Your task to perform on an android device: Clear the shopping cart on target. Add "acer nitro" to the cart on target, then select checkout. Image 0: 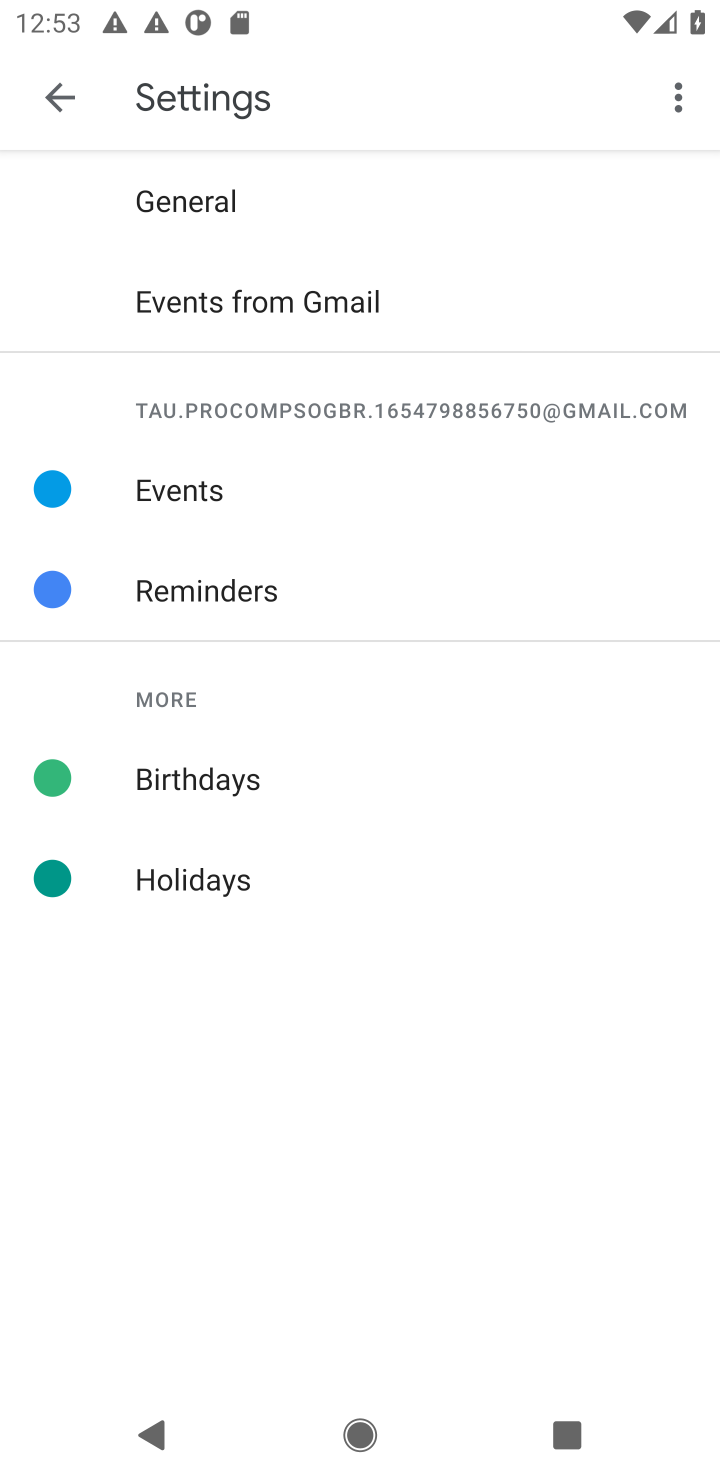
Step 0: press home button
Your task to perform on an android device: Clear the shopping cart on target. Add "acer nitro" to the cart on target, then select checkout. Image 1: 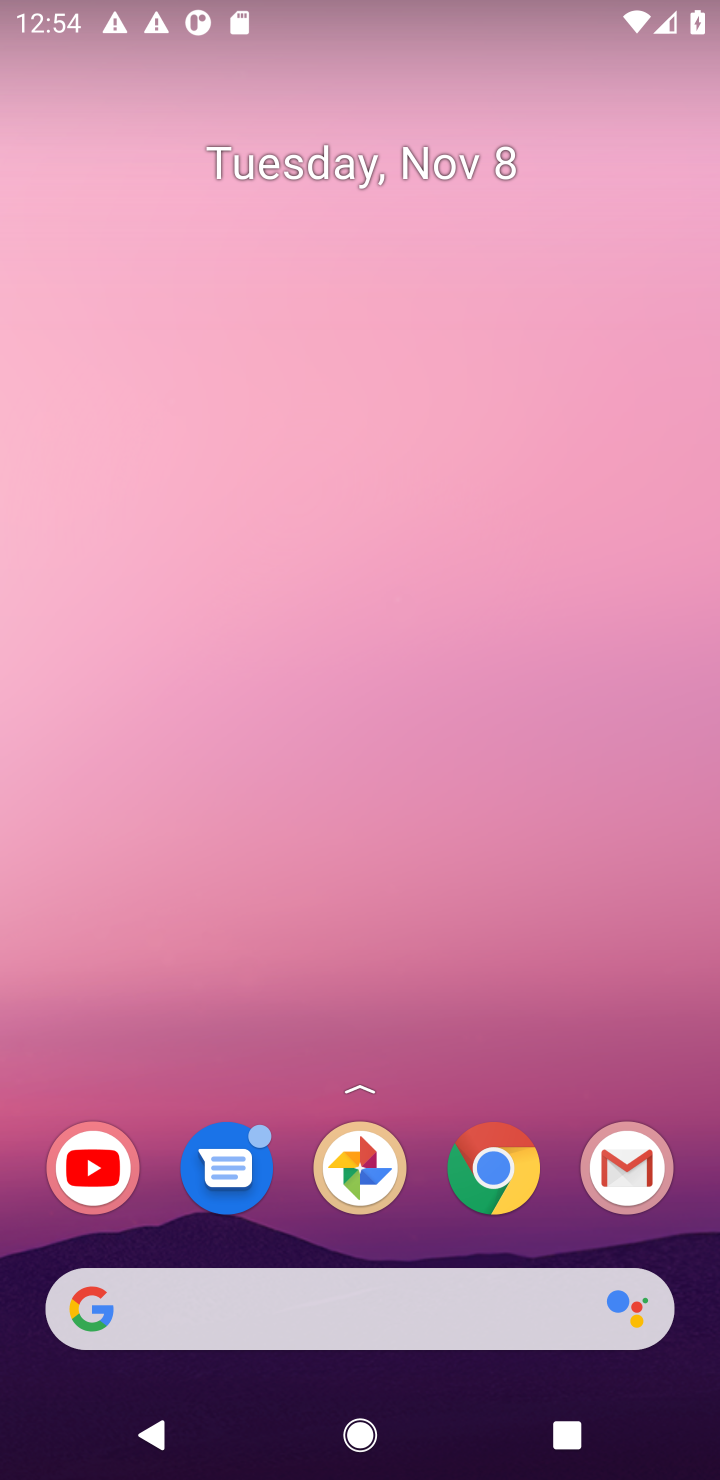
Step 1: drag from (420, 1094) to (317, 106)
Your task to perform on an android device: Clear the shopping cart on target. Add "acer nitro" to the cart on target, then select checkout. Image 2: 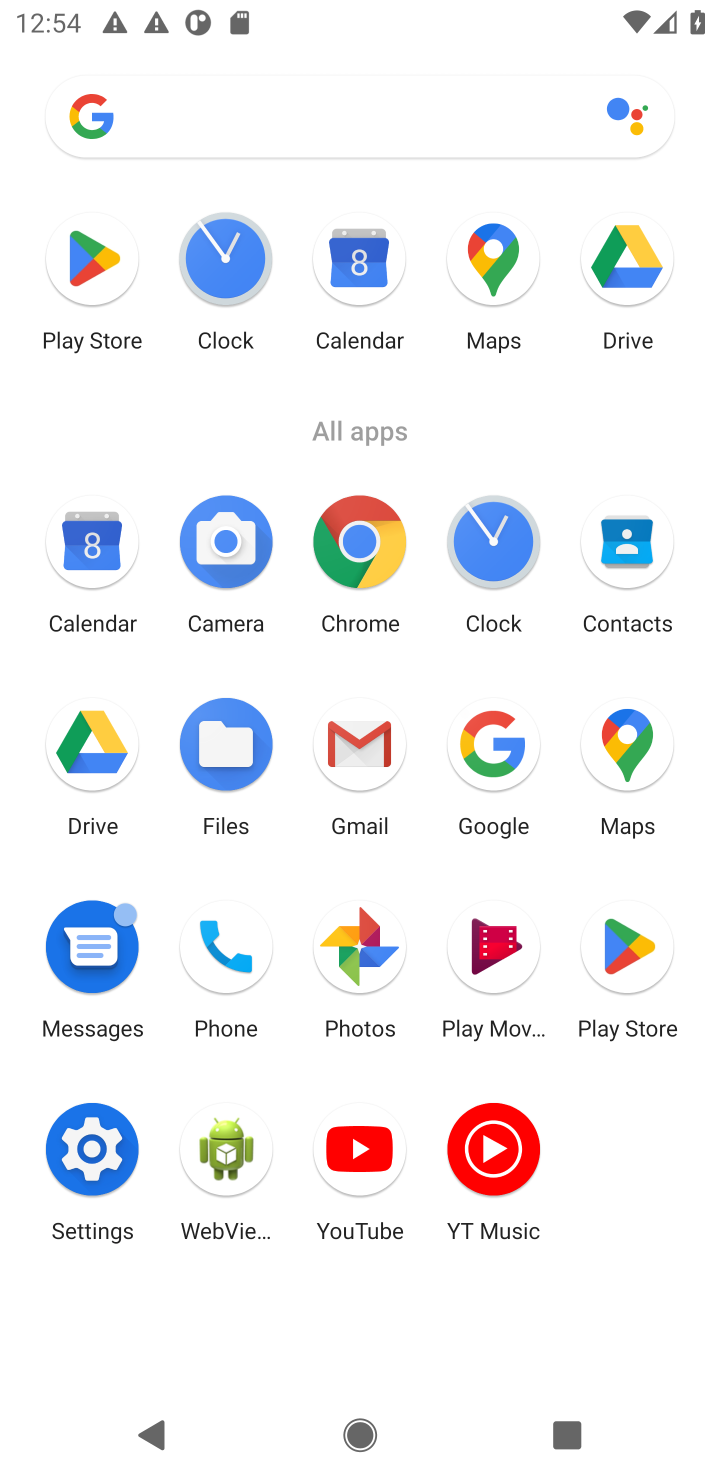
Step 2: click (376, 565)
Your task to perform on an android device: Clear the shopping cart on target. Add "acer nitro" to the cart on target, then select checkout. Image 3: 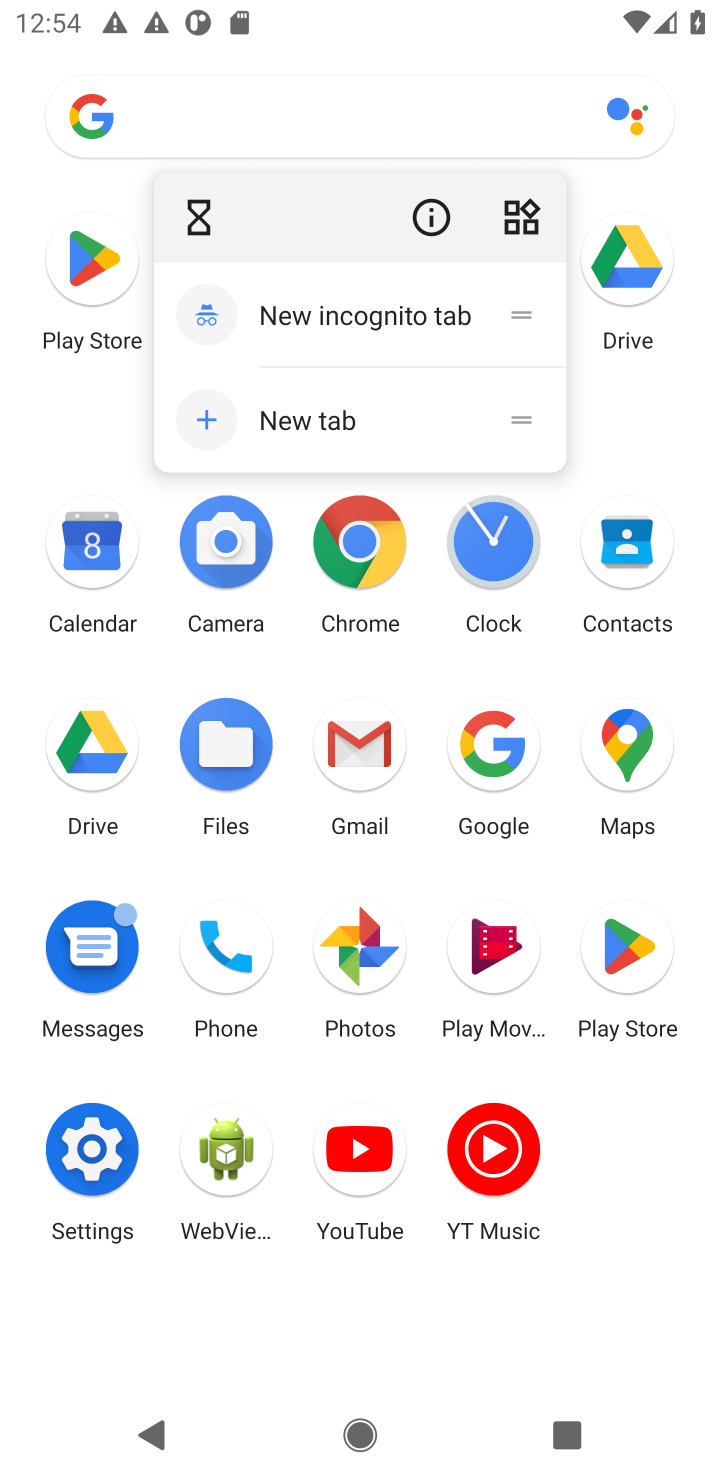
Step 3: click (362, 539)
Your task to perform on an android device: Clear the shopping cart on target. Add "acer nitro" to the cart on target, then select checkout. Image 4: 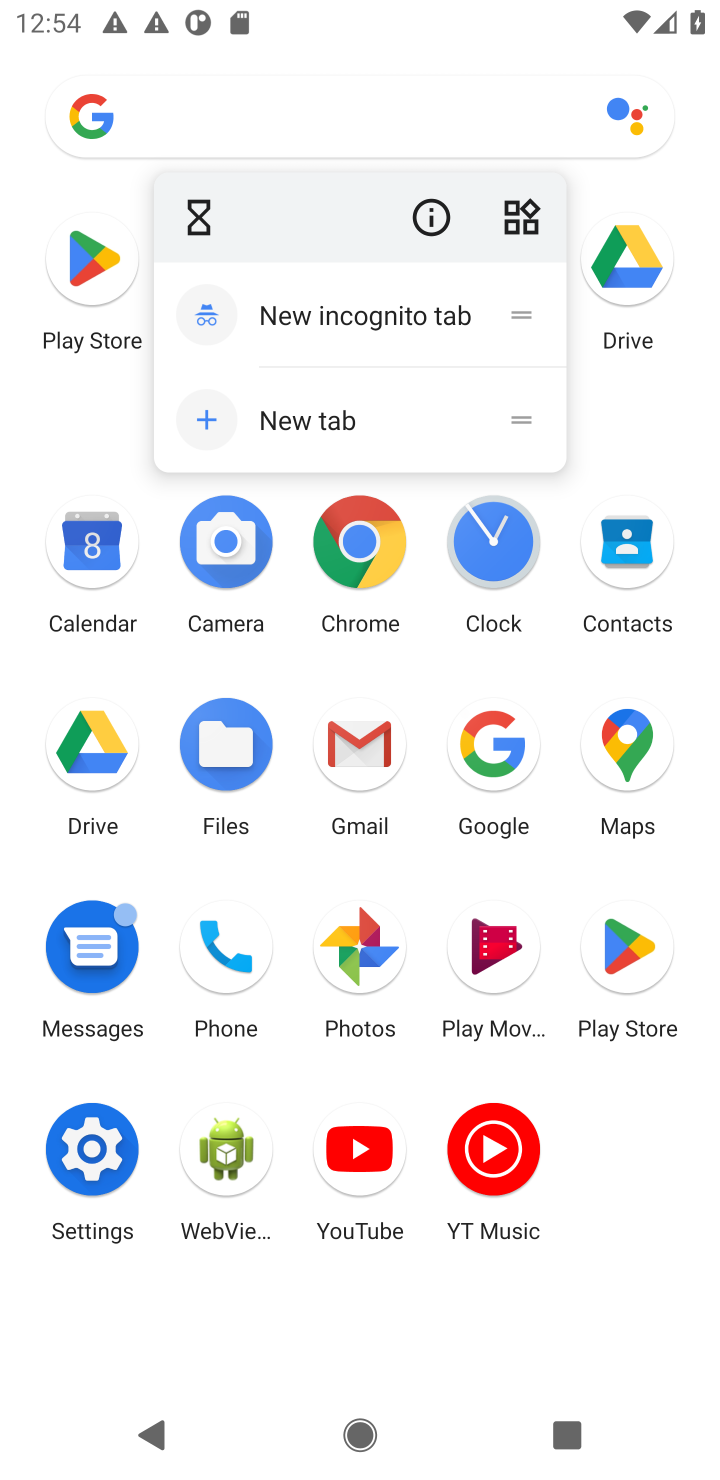
Step 4: click (362, 542)
Your task to perform on an android device: Clear the shopping cart on target. Add "acer nitro" to the cart on target, then select checkout. Image 5: 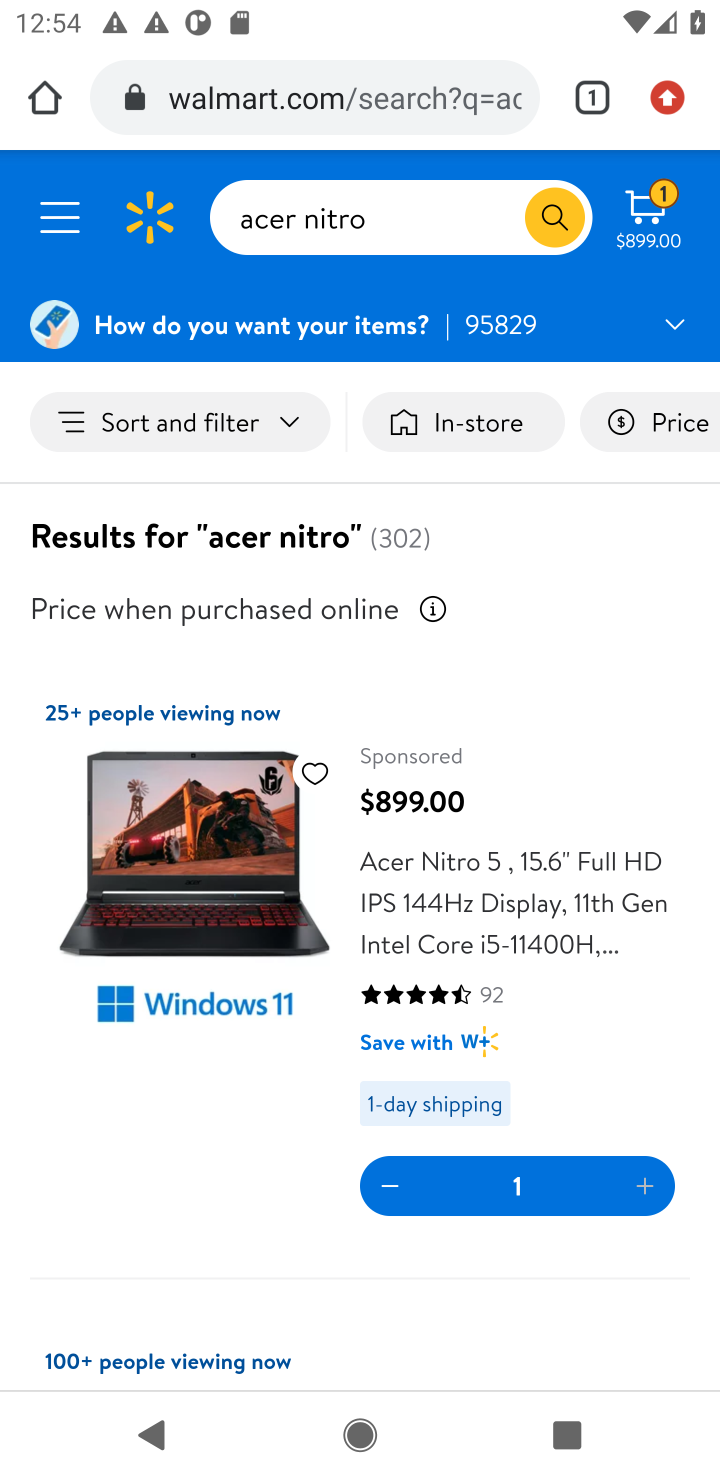
Step 5: click (302, 100)
Your task to perform on an android device: Clear the shopping cart on target. Add "acer nitro" to the cart on target, then select checkout. Image 6: 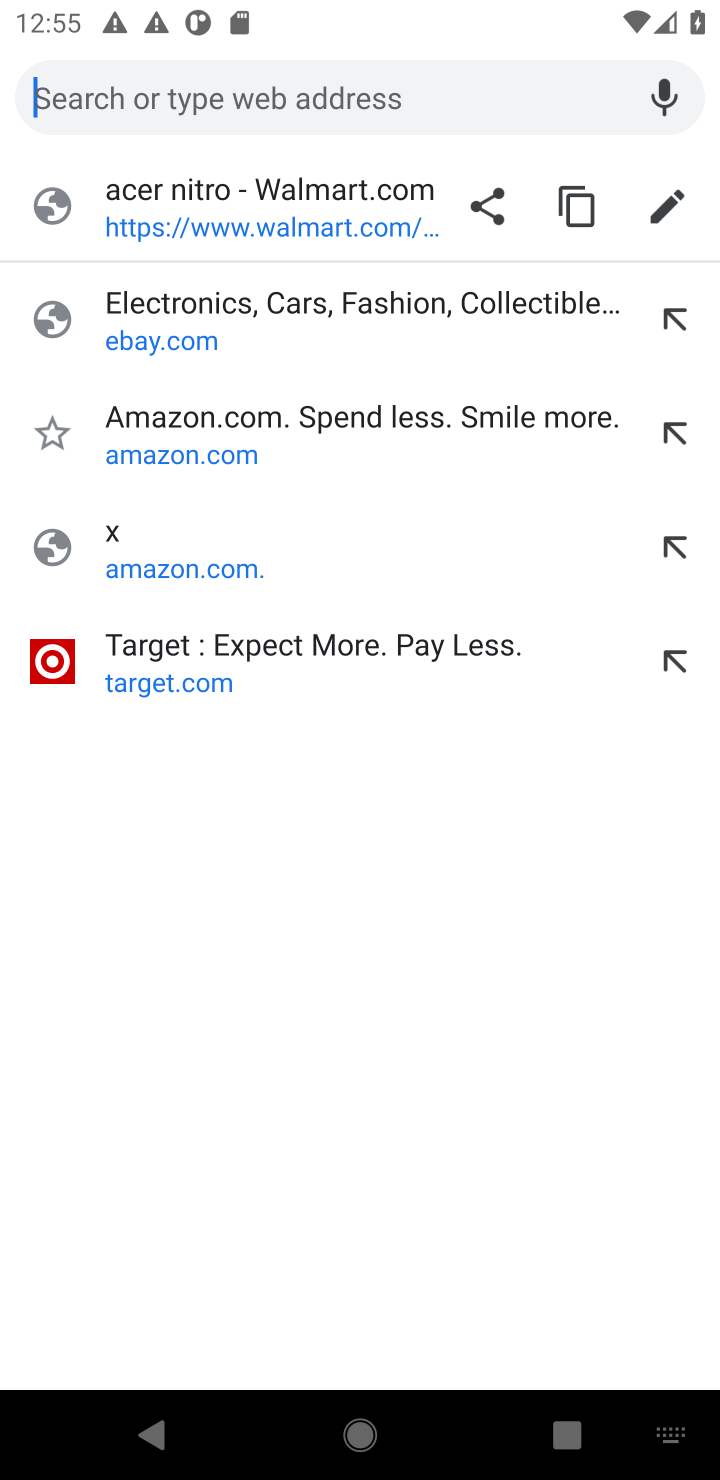
Step 6: type "target"
Your task to perform on an android device: Clear the shopping cart on target. Add "acer nitro" to the cart on target, then select checkout. Image 7: 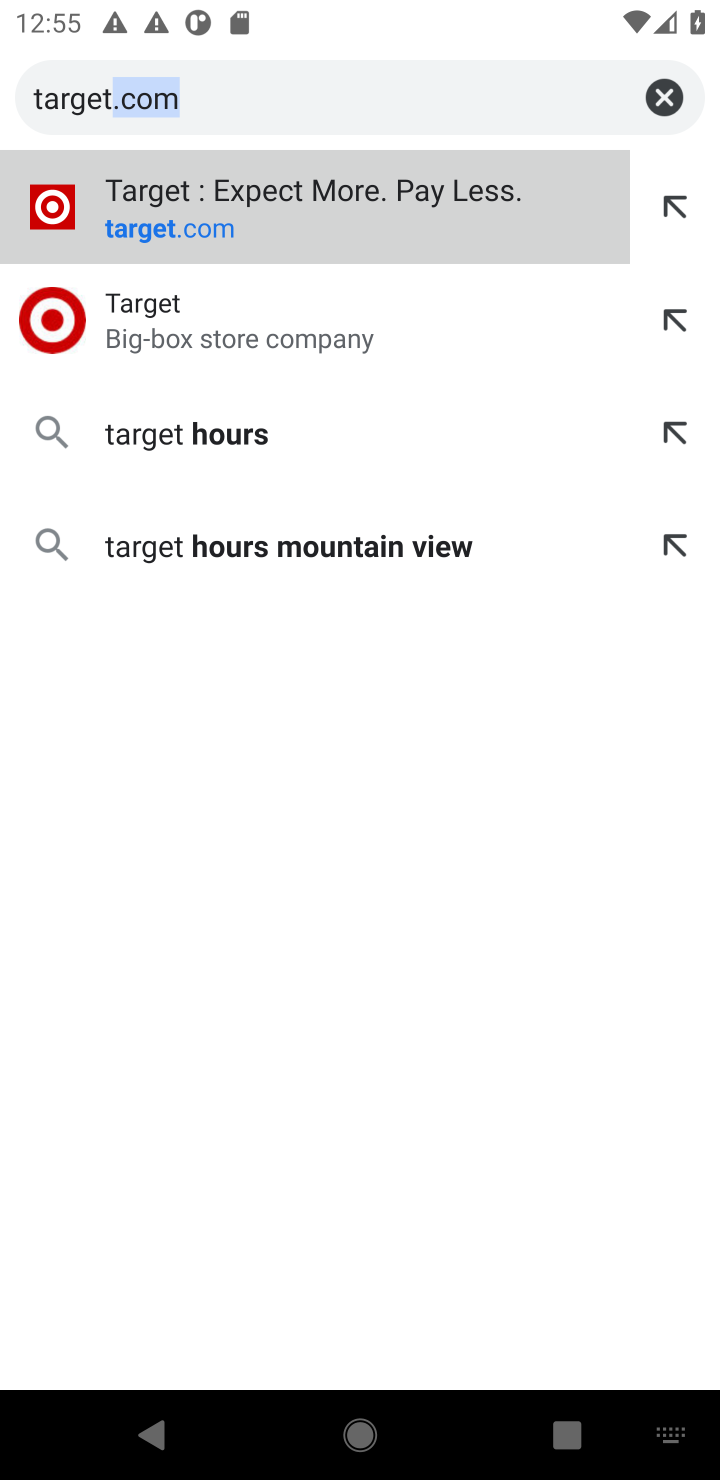
Step 7: press enter
Your task to perform on an android device: Clear the shopping cart on target. Add "acer nitro" to the cart on target, then select checkout. Image 8: 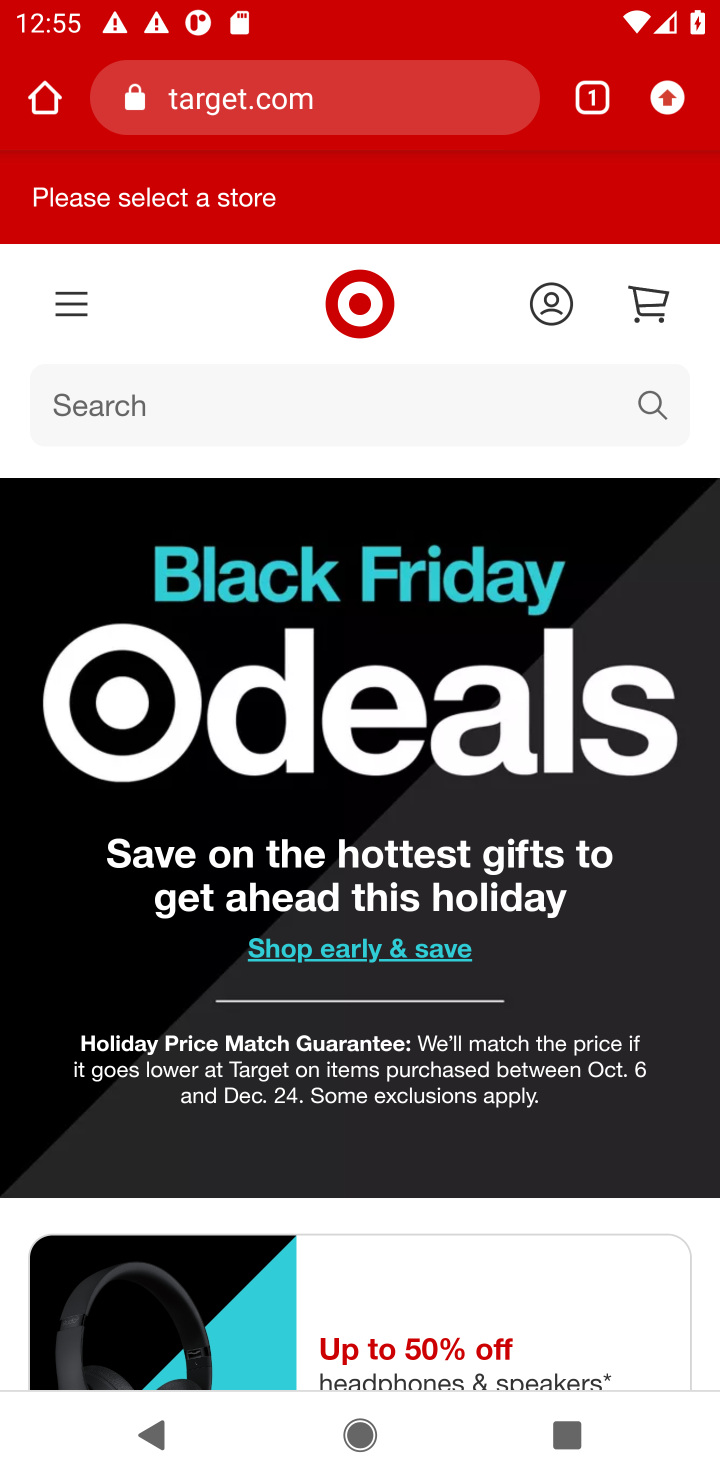
Step 8: click (293, 384)
Your task to perform on an android device: Clear the shopping cart on target. Add "acer nitro" to the cart on target, then select checkout. Image 9: 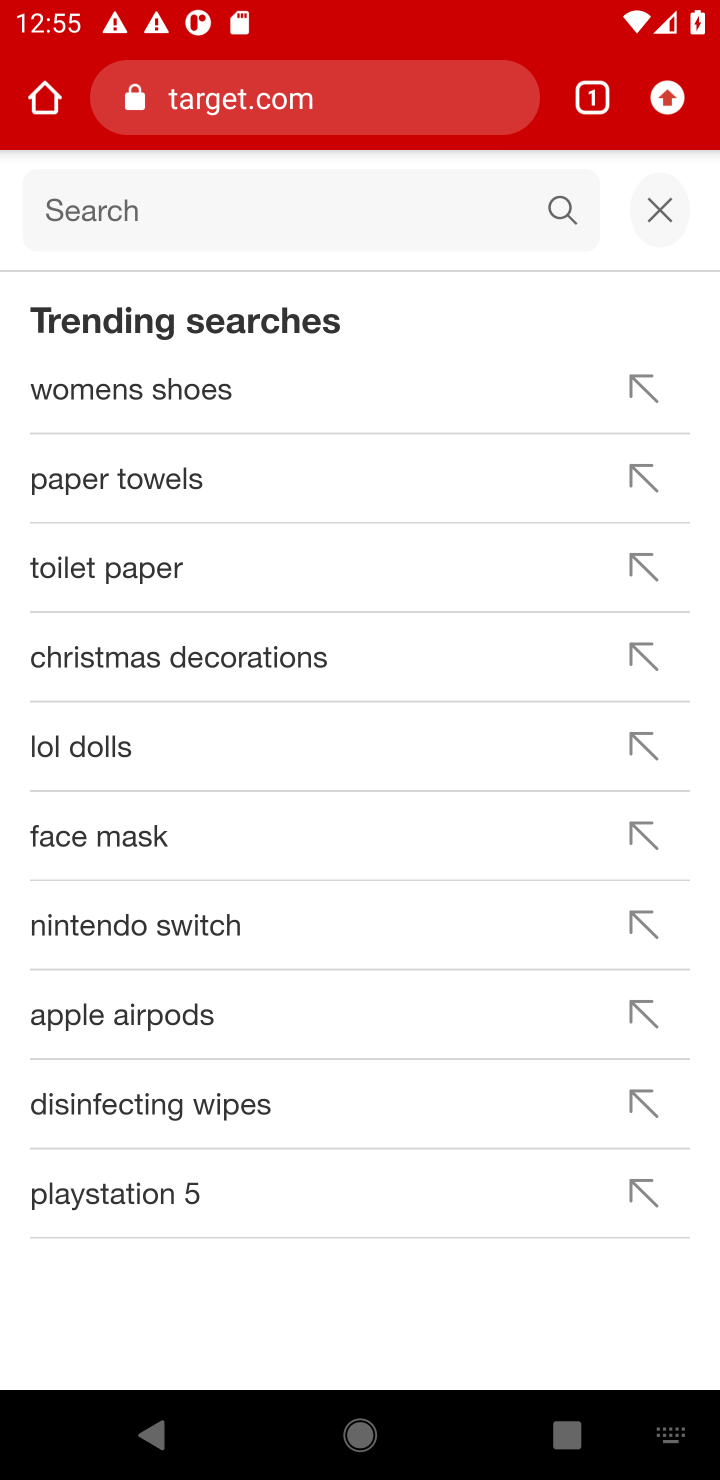
Step 9: type "acer nitro"
Your task to perform on an android device: Clear the shopping cart on target. Add "acer nitro" to the cart on target, then select checkout. Image 10: 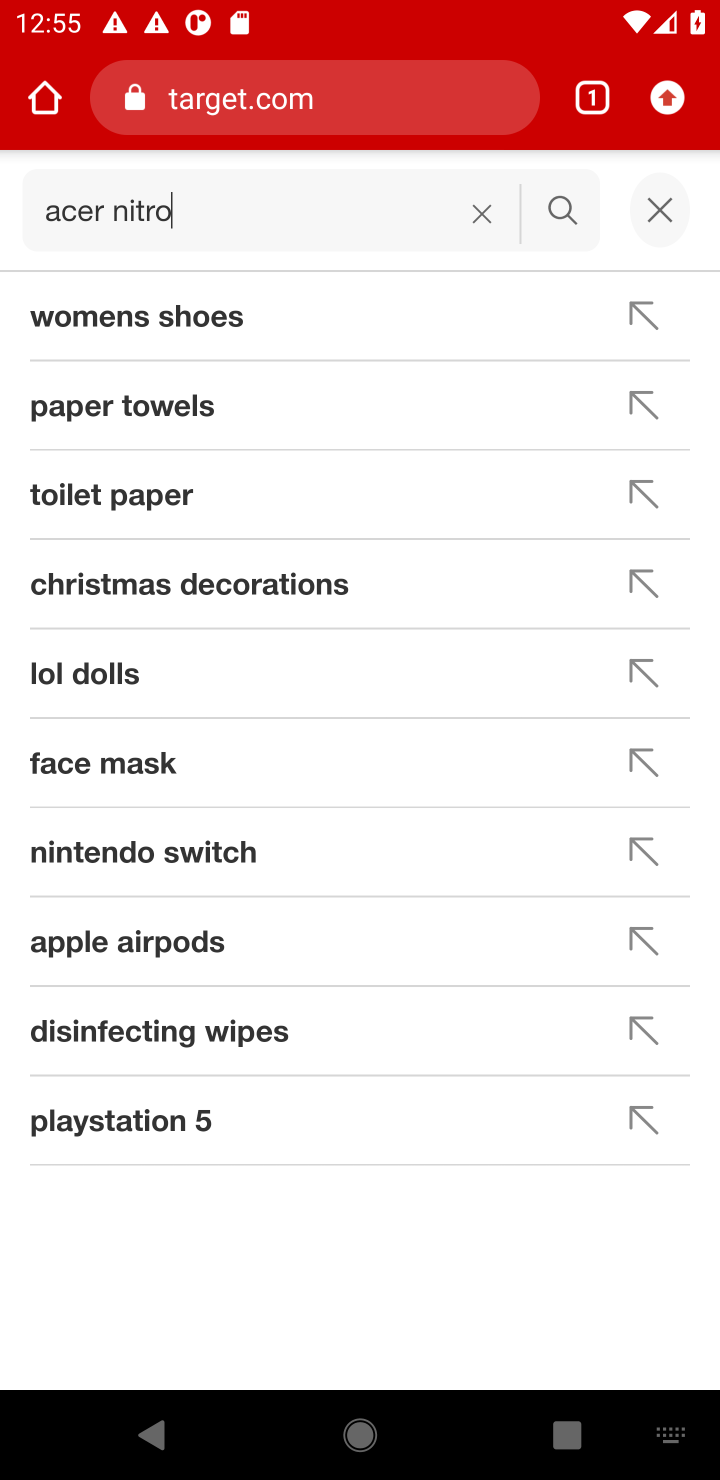
Step 10: press enter
Your task to perform on an android device: Clear the shopping cart on target. Add "acer nitro" to the cart on target, then select checkout. Image 11: 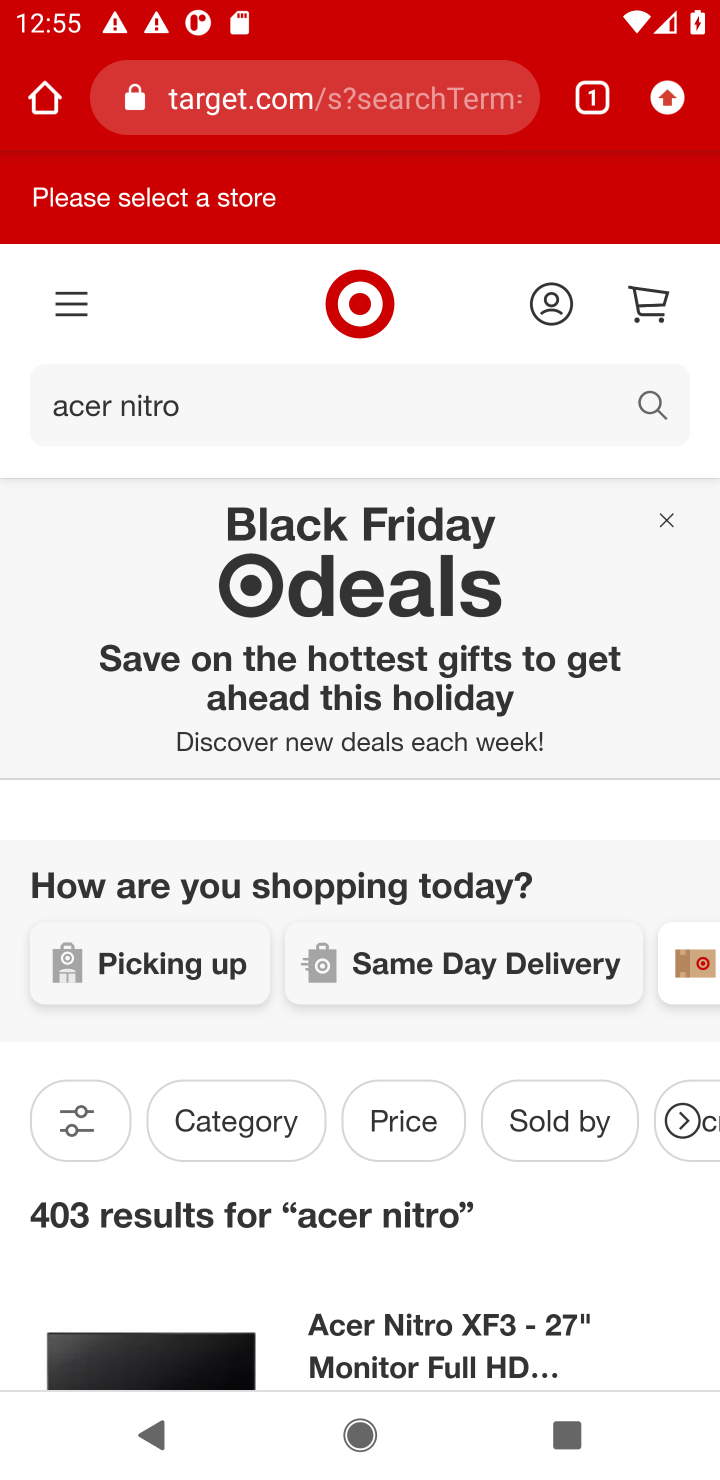
Step 11: drag from (331, 1143) to (305, 556)
Your task to perform on an android device: Clear the shopping cart on target. Add "acer nitro" to the cart on target, then select checkout. Image 12: 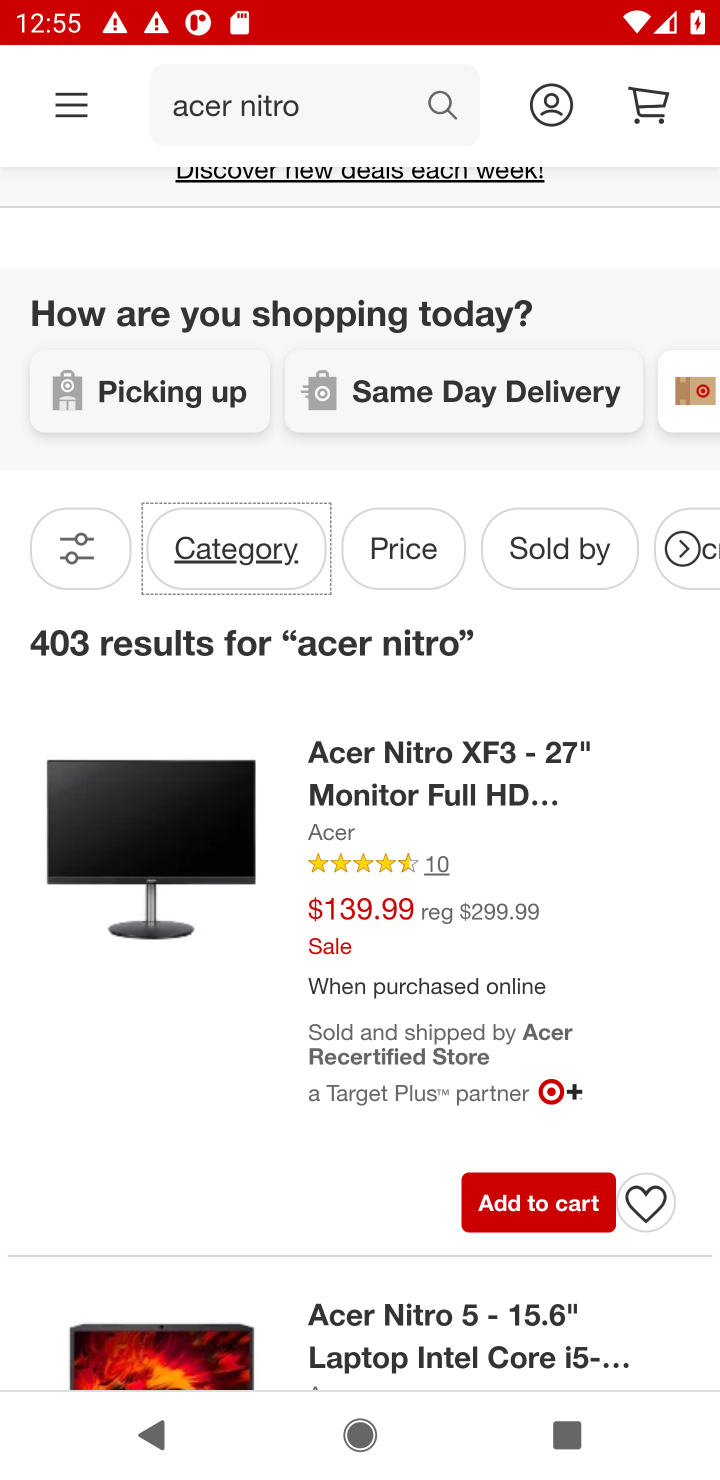
Step 12: click (507, 1199)
Your task to perform on an android device: Clear the shopping cart on target. Add "acer nitro" to the cart on target, then select checkout. Image 13: 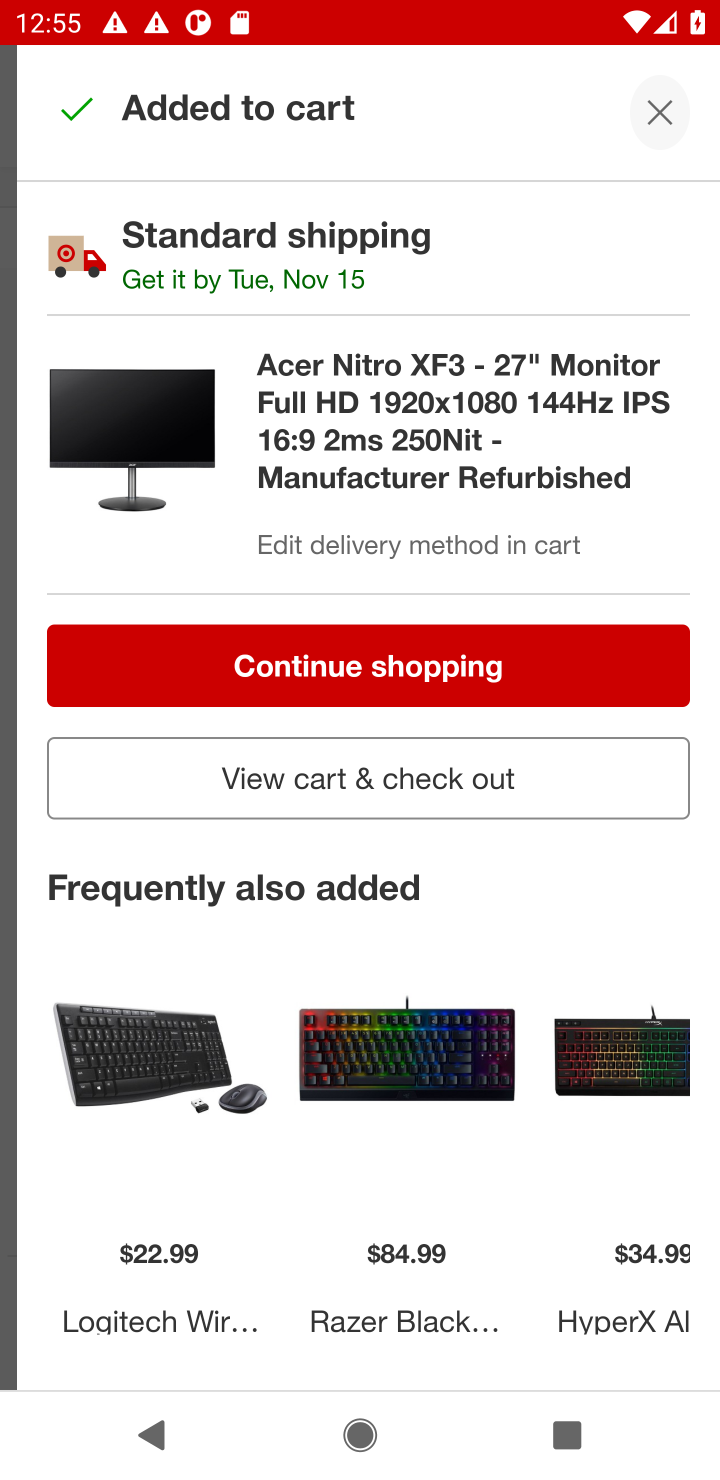
Step 13: click (413, 782)
Your task to perform on an android device: Clear the shopping cart on target. Add "acer nitro" to the cart on target, then select checkout. Image 14: 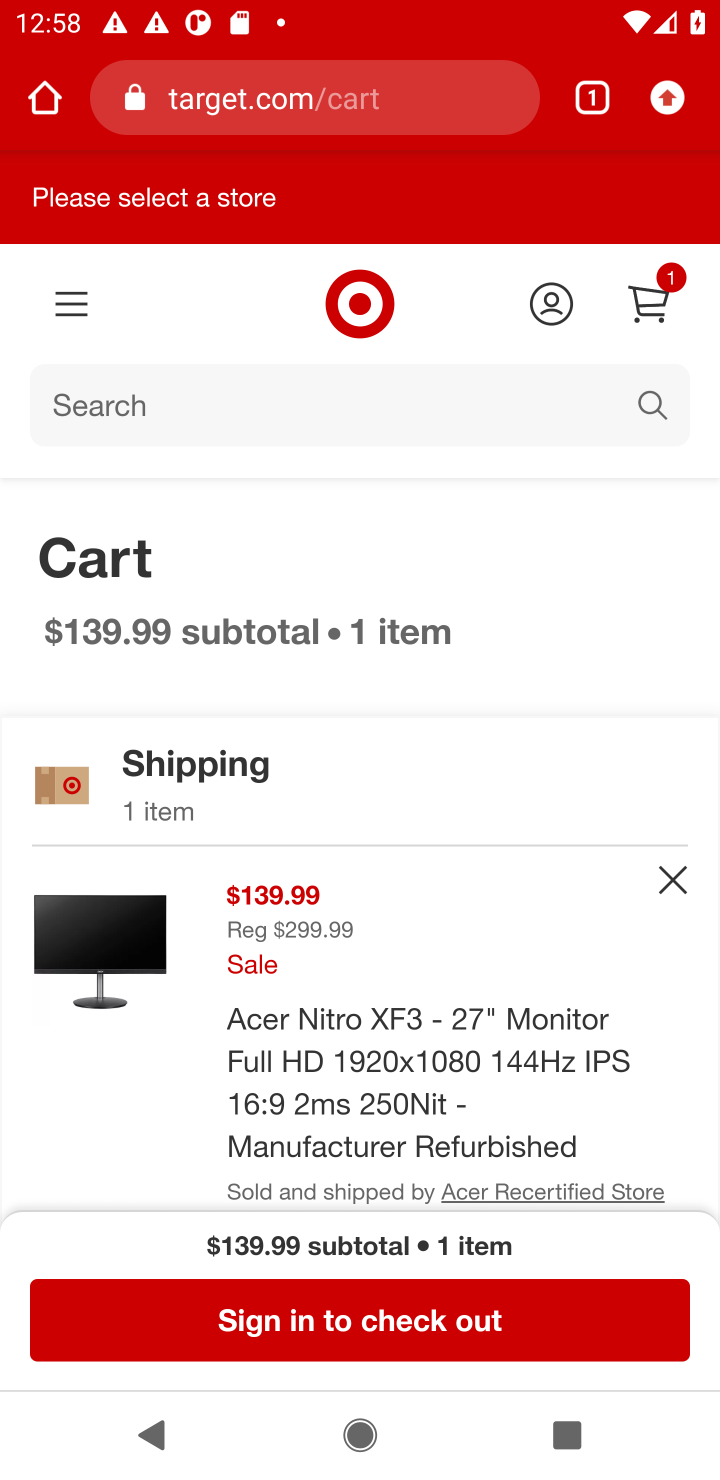
Step 14: task complete